Your task to perform on an android device: Open my contact list Image 0: 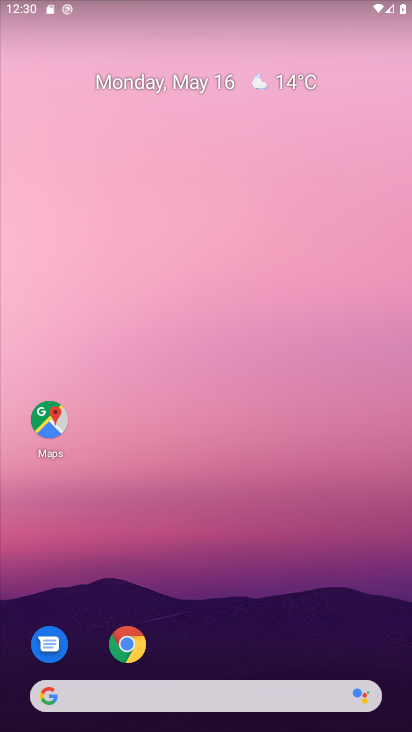
Step 0: drag from (346, 617) to (349, 166)
Your task to perform on an android device: Open my contact list Image 1: 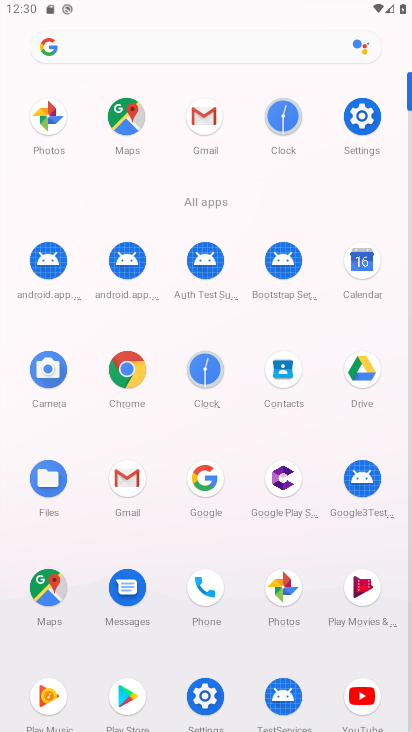
Step 1: click (285, 392)
Your task to perform on an android device: Open my contact list Image 2: 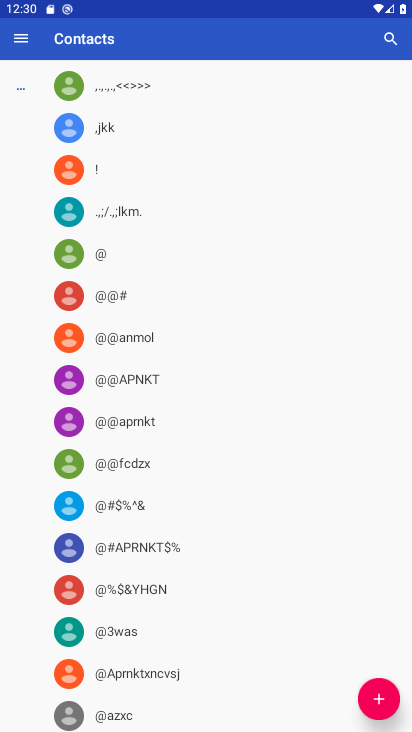
Step 2: task complete